Your task to perform on an android device: Open Youtube and go to "Your channel" Image 0: 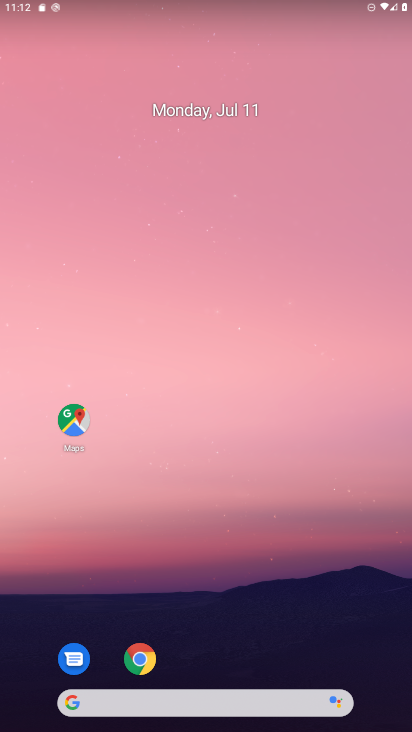
Step 0: drag from (311, 598) to (192, 104)
Your task to perform on an android device: Open Youtube and go to "Your channel" Image 1: 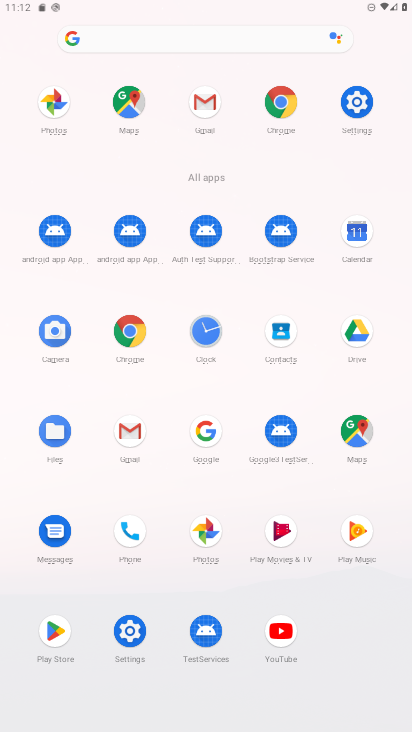
Step 1: click (271, 636)
Your task to perform on an android device: Open Youtube and go to "Your channel" Image 2: 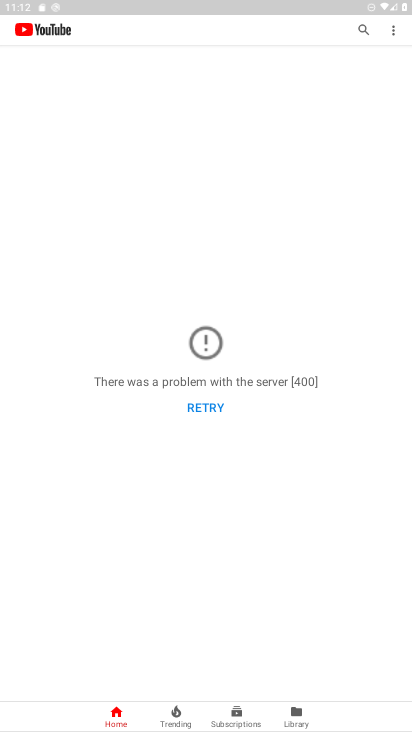
Step 2: task complete